Your task to perform on an android device: Open Youtube and go to "Your channel" Image 0: 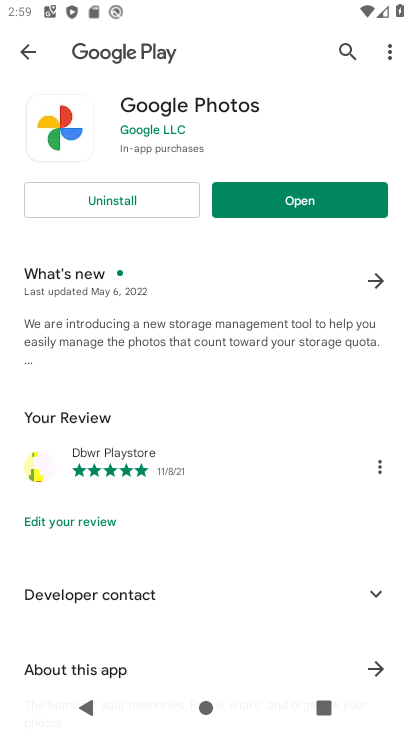
Step 0: press home button
Your task to perform on an android device: Open Youtube and go to "Your channel" Image 1: 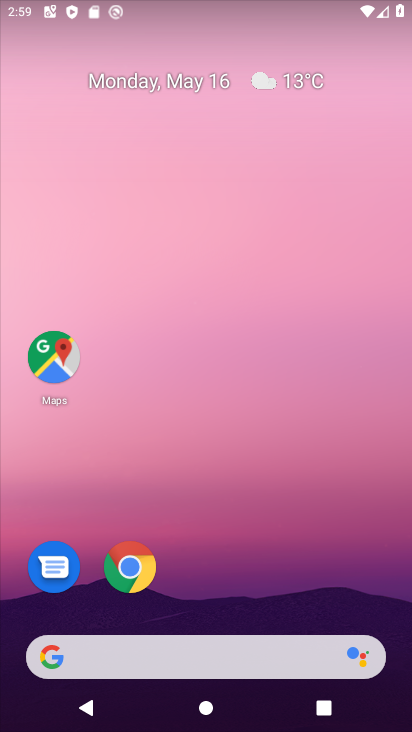
Step 1: drag from (180, 583) to (229, 140)
Your task to perform on an android device: Open Youtube and go to "Your channel" Image 2: 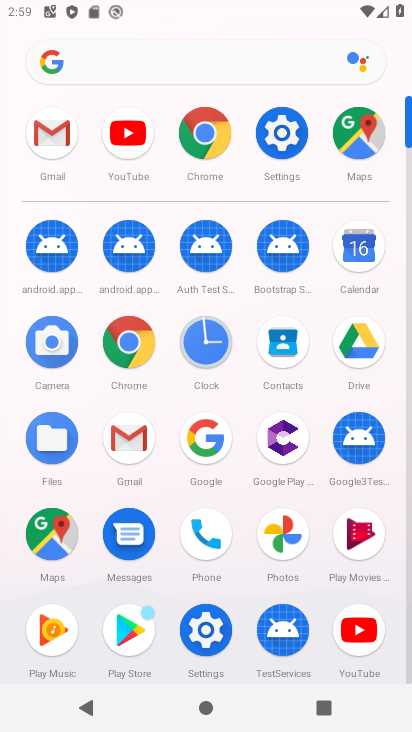
Step 2: click (133, 135)
Your task to perform on an android device: Open Youtube and go to "Your channel" Image 3: 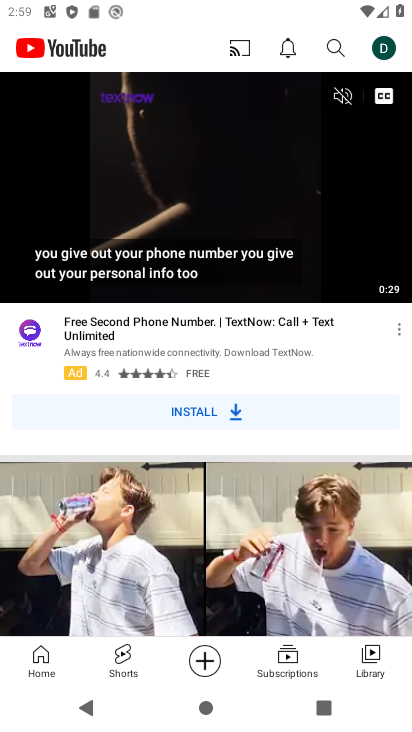
Step 3: click (385, 38)
Your task to perform on an android device: Open Youtube and go to "Your channel" Image 4: 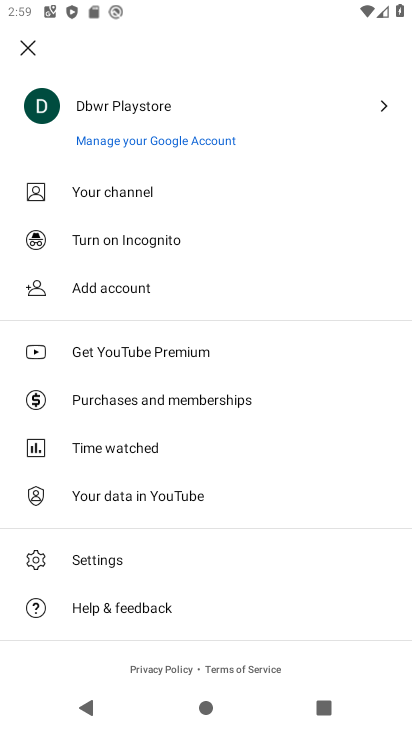
Step 4: click (123, 182)
Your task to perform on an android device: Open Youtube and go to "Your channel" Image 5: 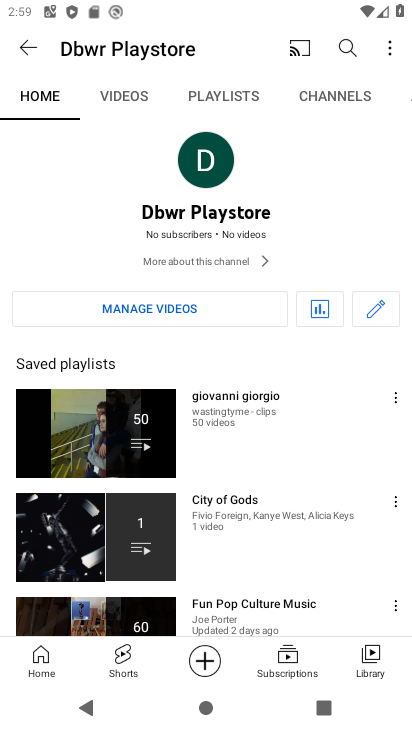
Step 5: task complete